Your task to perform on an android device: What is the news today? Image 0: 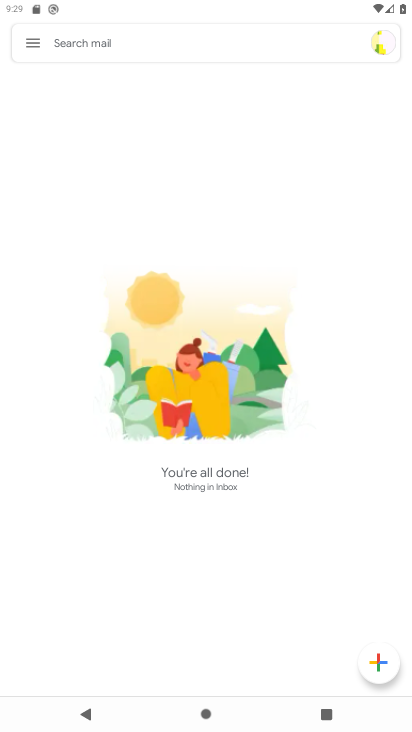
Step 0: press home button
Your task to perform on an android device: What is the news today? Image 1: 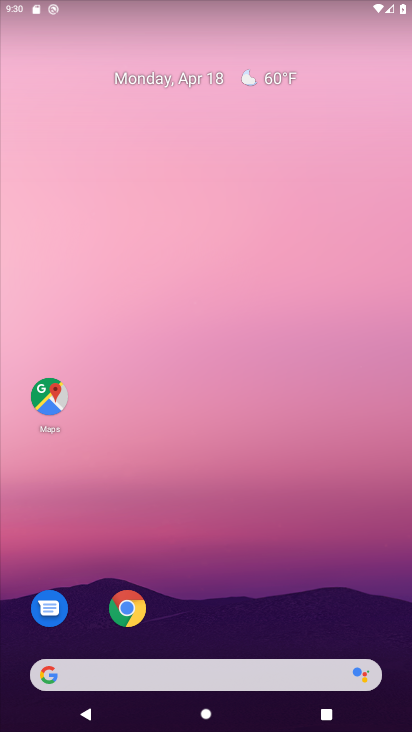
Step 1: drag from (354, 529) to (347, 31)
Your task to perform on an android device: What is the news today? Image 2: 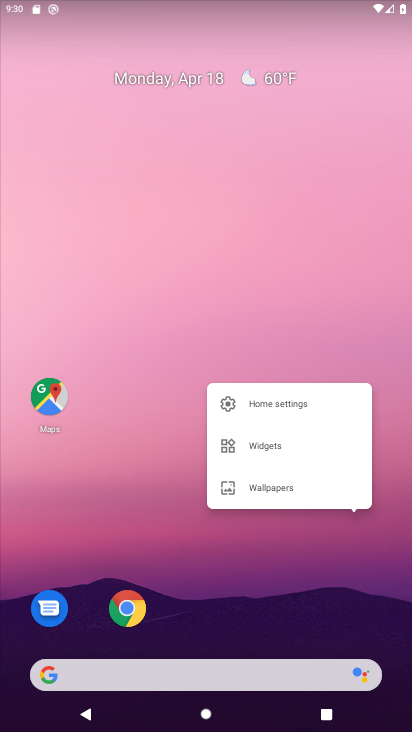
Step 2: click (138, 614)
Your task to perform on an android device: What is the news today? Image 3: 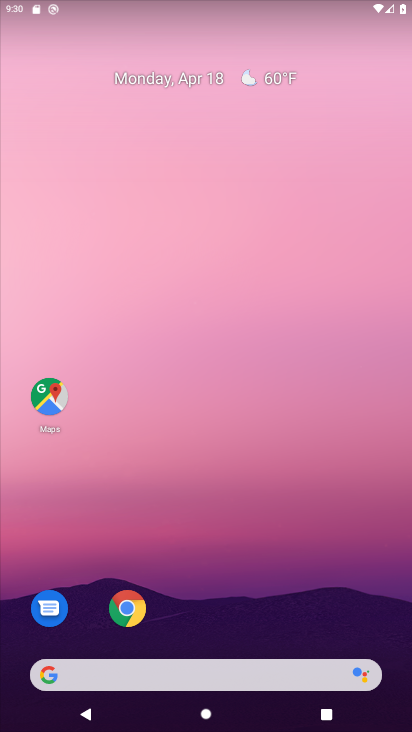
Step 3: click (135, 604)
Your task to perform on an android device: What is the news today? Image 4: 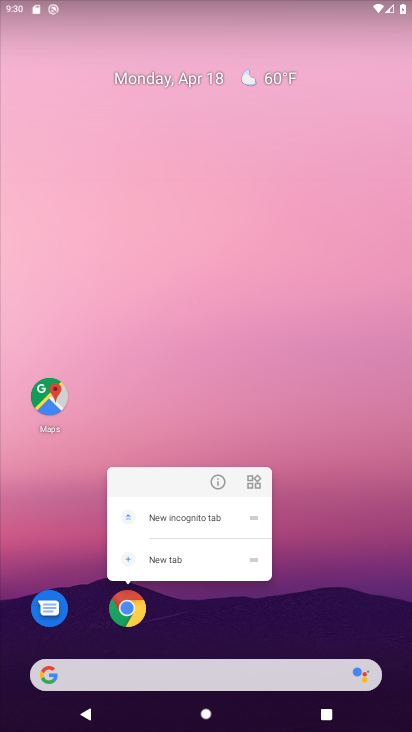
Step 4: click (138, 611)
Your task to perform on an android device: What is the news today? Image 5: 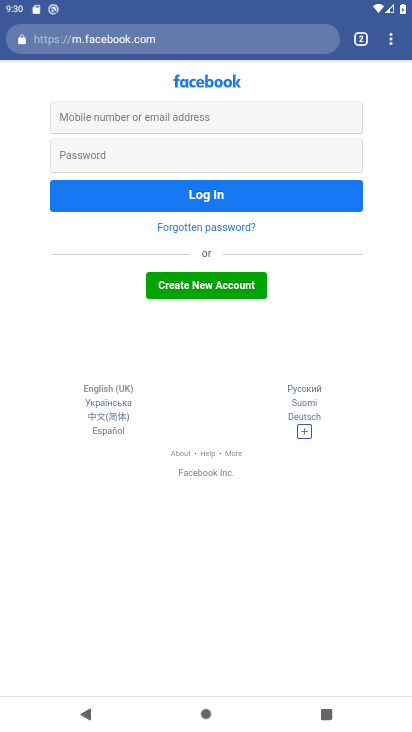
Step 5: click (353, 42)
Your task to perform on an android device: What is the news today? Image 6: 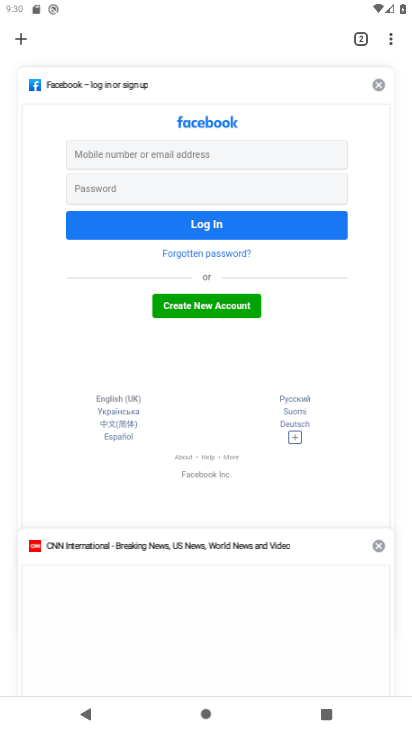
Step 6: click (22, 41)
Your task to perform on an android device: What is the news today? Image 7: 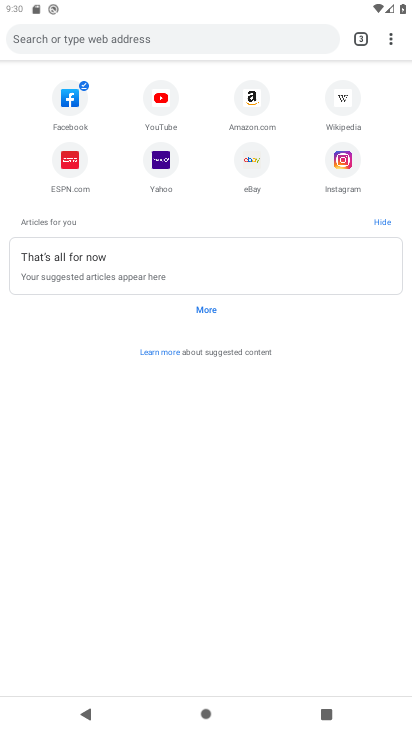
Step 7: click (121, 40)
Your task to perform on an android device: What is the news today? Image 8: 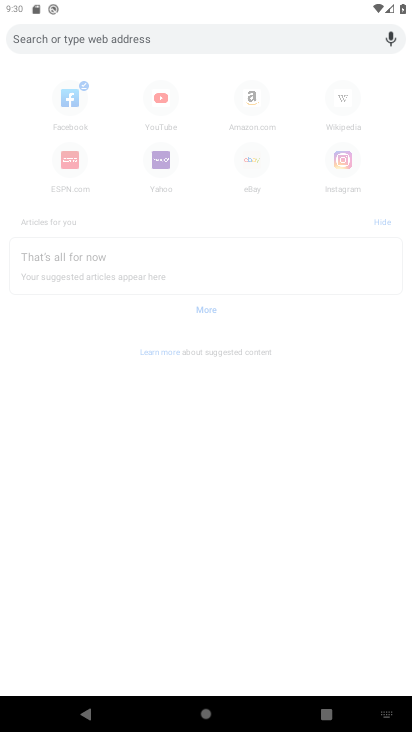
Step 8: type "news today"
Your task to perform on an android device: What is the news today? Image 9: 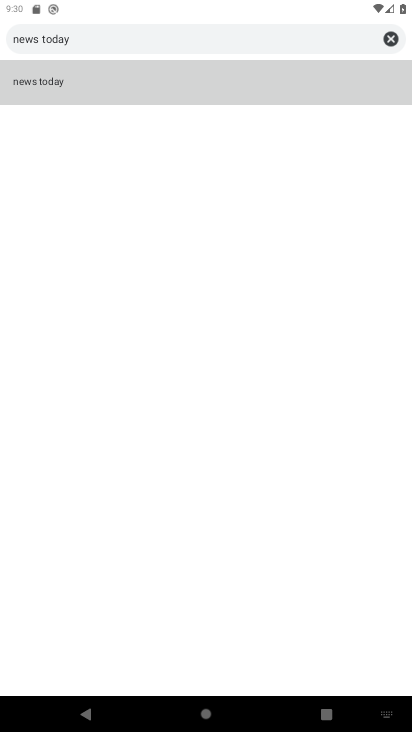
Step 9: click (62, 80)
Your task to perform on an android device: What is the news today? Image 10: 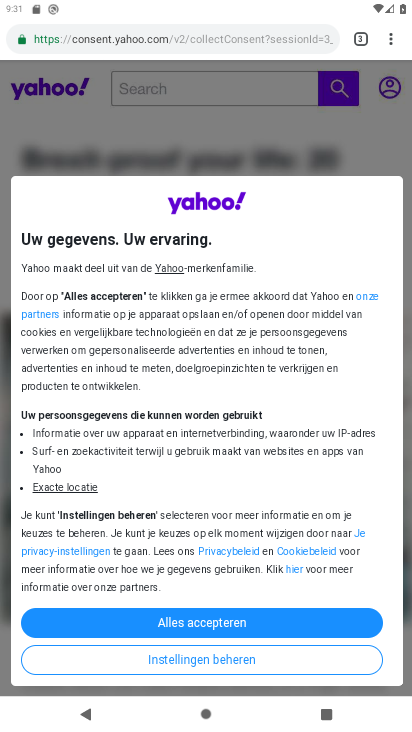
Step 10: task complete